Your task to perform on an android device: Search for sushi restaurants on Maps Image 0: 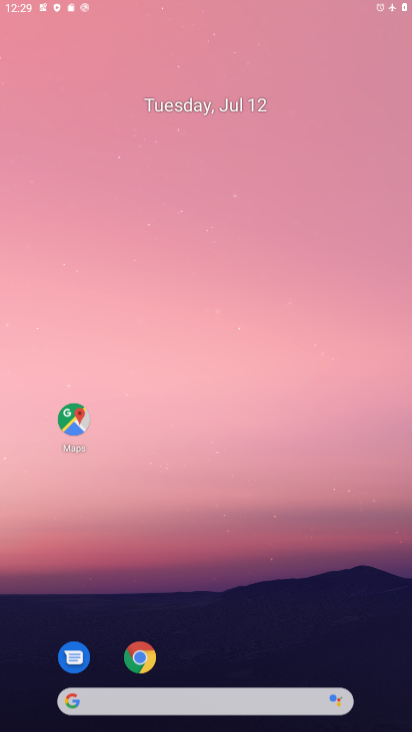
Step 0: click (221, 82)
Your task to perform on an android device: Search for sushi restaurants on Maps Image 1: 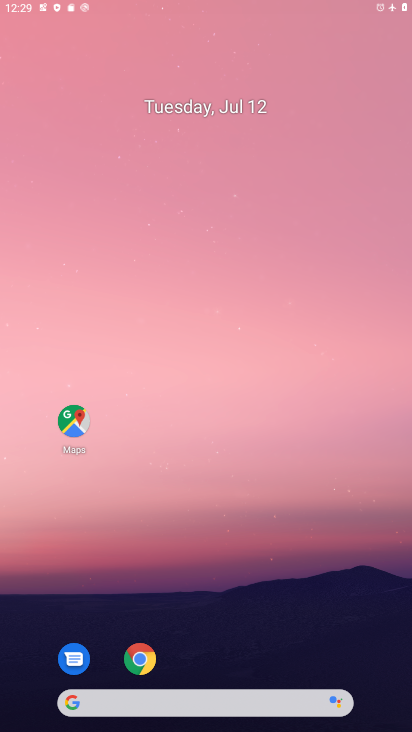
Step 1: drag from (175, 630) to (238, 136)
Your task to perform on an android device: Search for sushi restaurants on Maps Image 2: 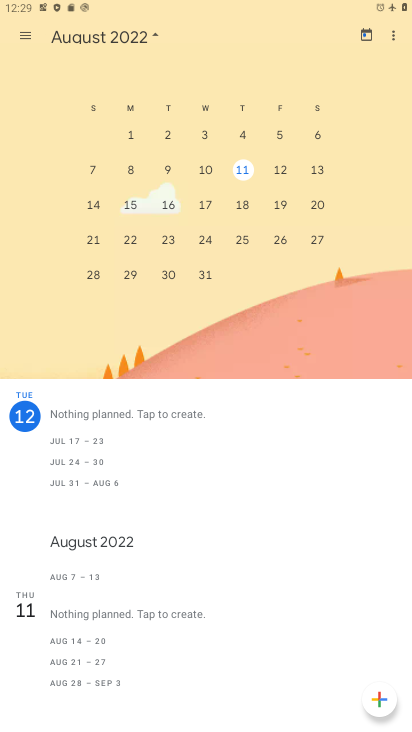
Step 2: press home button
Your task to perform on an android device: Search for sushi restaurants on Maps Image 3: 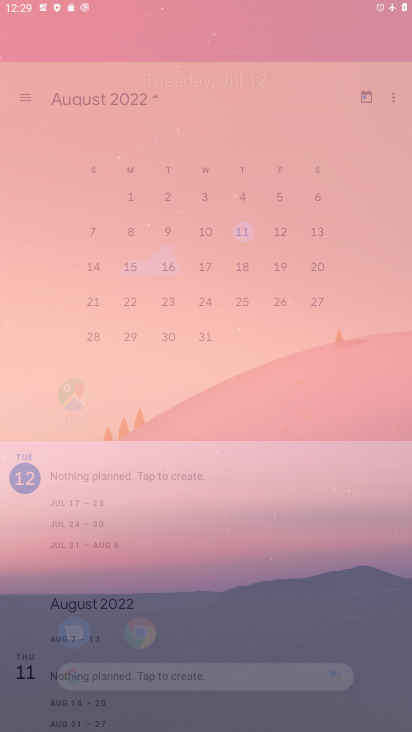
Step 3: drag from (179, 594) to (230, 126)
Your task to perform on an android device: Search for sushi restaurants on Maps Image 4: 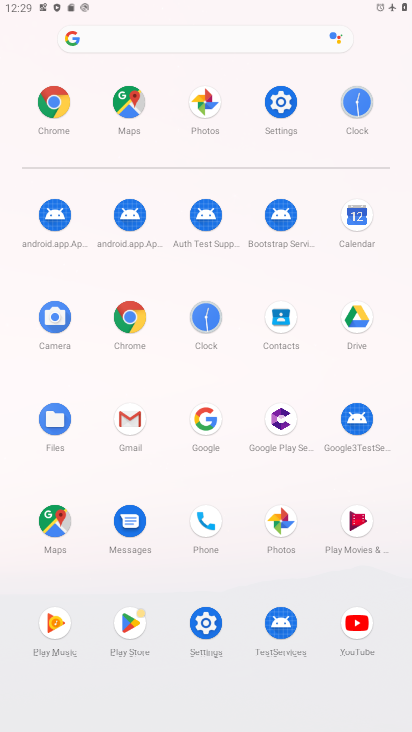
Step 4: click (58, 517)
Your task to perform on an android device: Search for sushi restaurants on Maps Image 5: 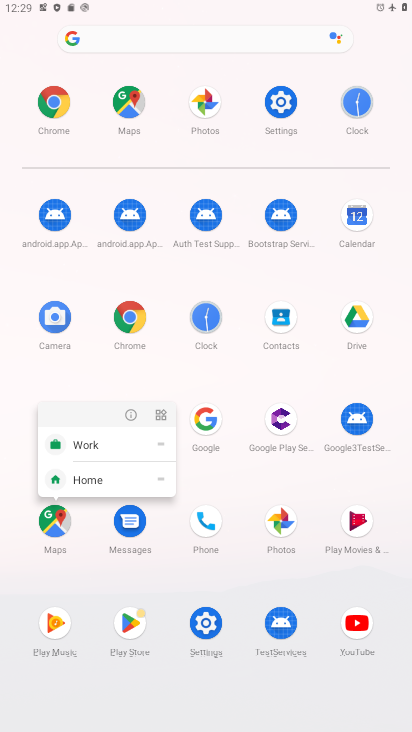
Step 5: click (128, 419)
Your task to perform on an android device: Search for sushi restaurants on Maps Image 6: 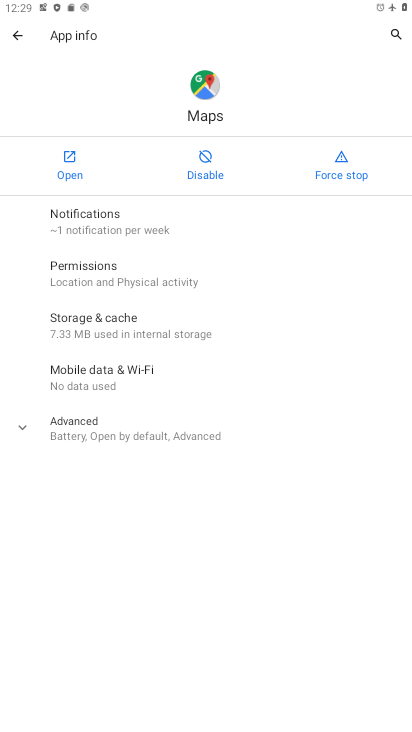
Step 6: click (70, 149)
Your task to perform on an android device: Search for sushi restaurants on Maps Image 7: 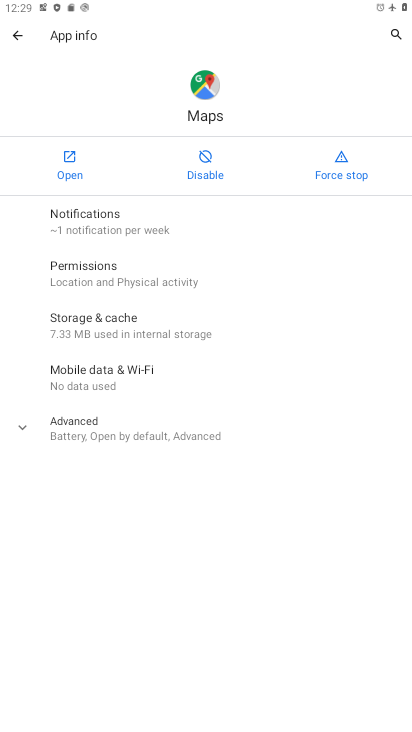
Step 7: click (70, 149)
Your task to perform on an android device: Search for sushi restaurants on Maps Image 8: 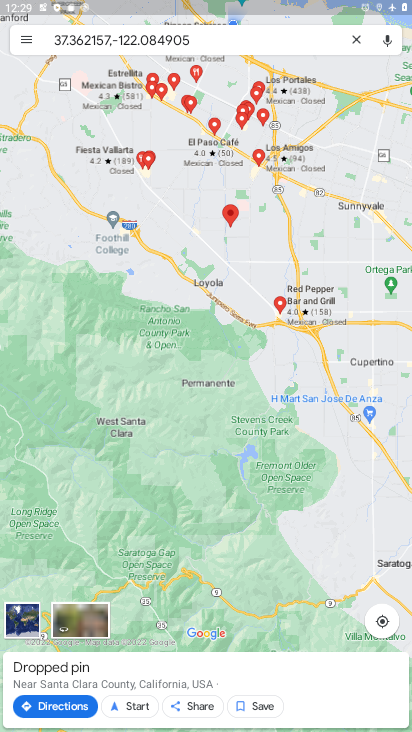
Step 8: click (363, 33)
Your task to perform on an android device: Search for sushi restaurants on Maps Image 9: 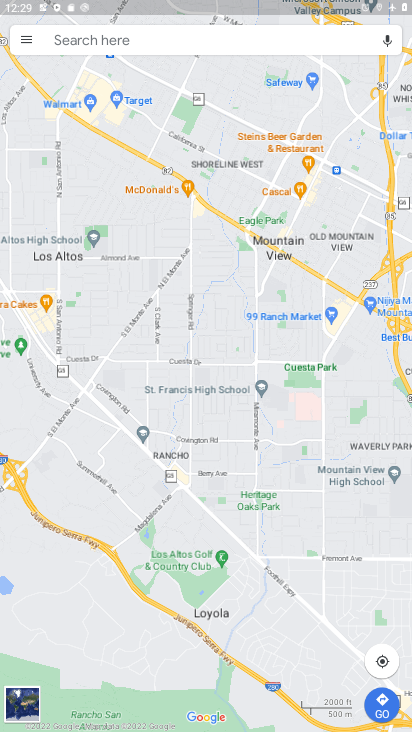
Step 9: click (108, 34)
Your task to perform on an android device: Search for sushi restaurants on Maps Image 10: 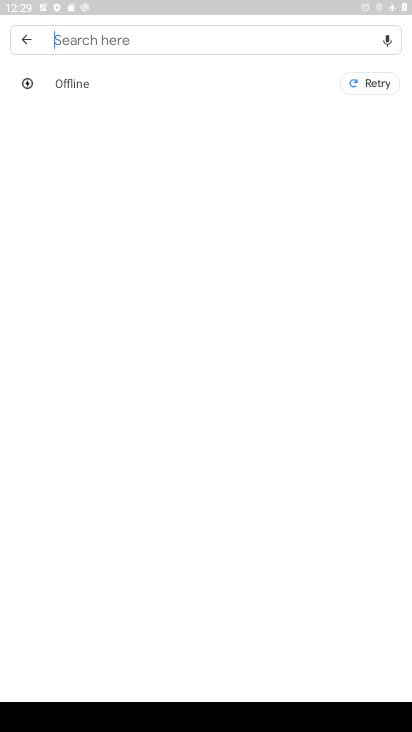
Step 10: click (103, 29)
Your task to perform on an android device: Search for sushi restaurants on Maps Image 11: 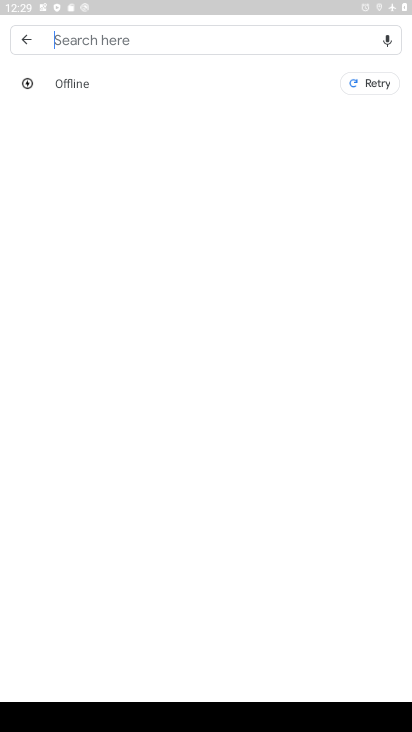
Step 11: type "sushi restaurants"
Your task to perform on an android device: Search for sushi restaurants on Maps Image 12: 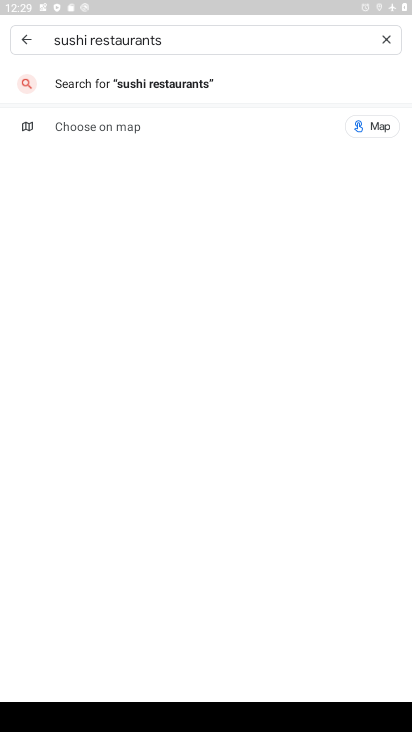
Step 12: click (220, 457)
Your task to perform on an android device: Search for sushi restaurants on Maps Image 13: 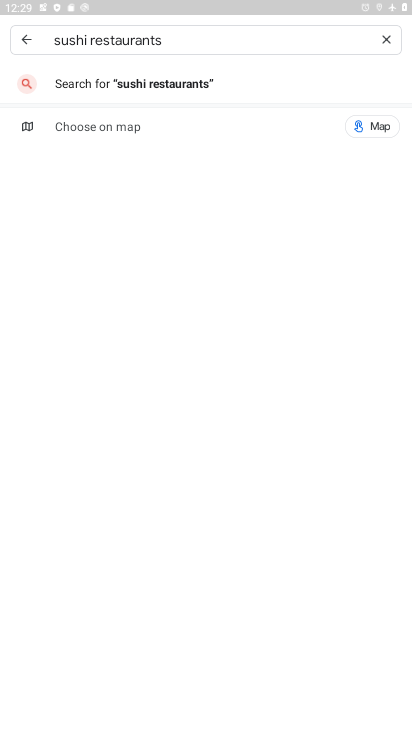
Step 13: click (160, 86)
Your task to perform on an android device: Search for sushi restaurants on Maps Image 14: 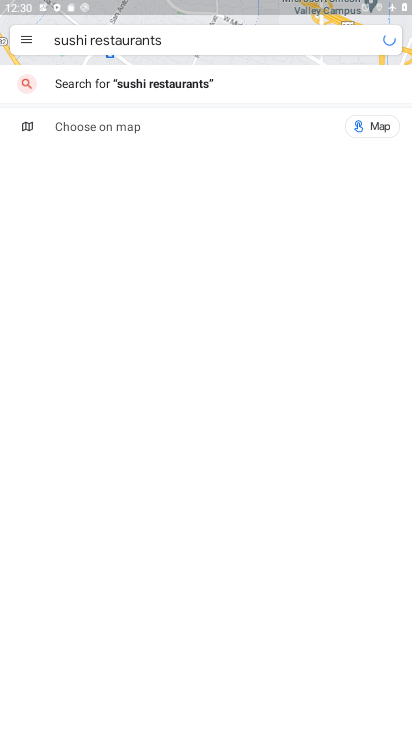
Step 14: task complete